Your task to perform on an android device: Go to privacy settings Image 0: 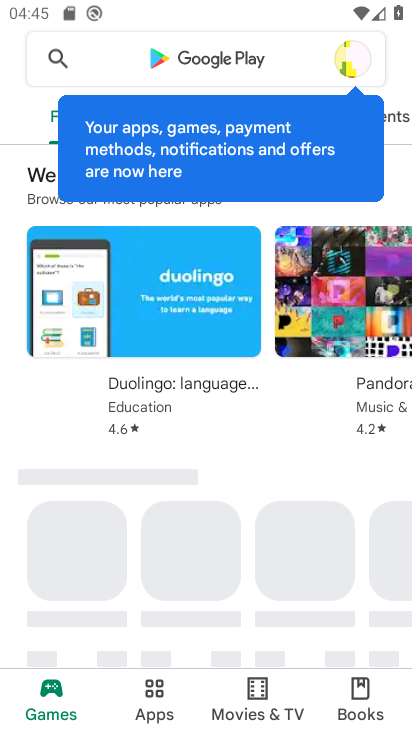
Step 0: press home button
Your task to perform on an android device: Go to privacy settings Image 1: 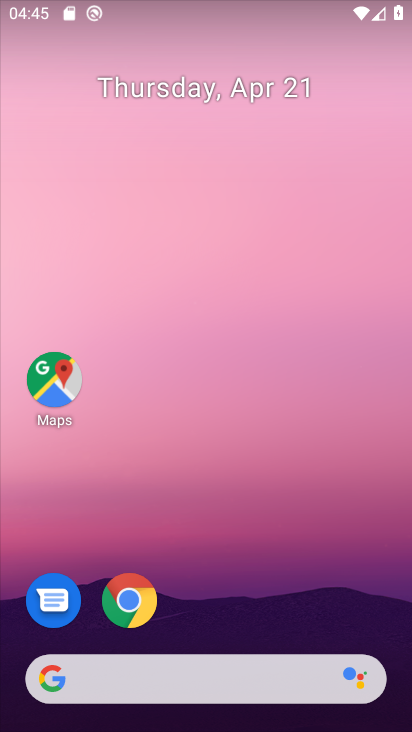
Step 1: drag from (341, 609) to (352, 28)
Your task to perform on an android device: Go to privacy settings Image 2: 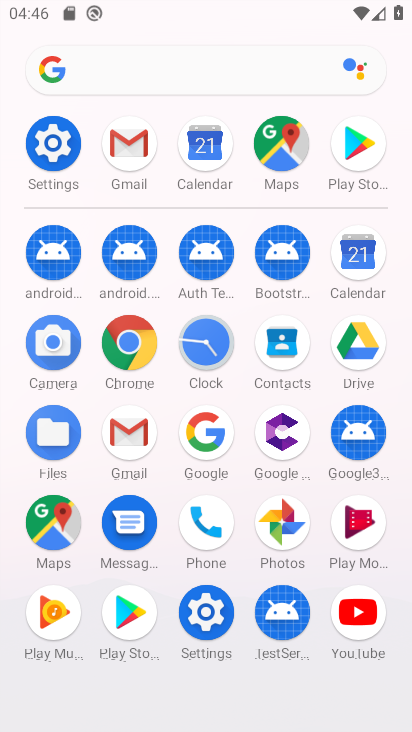
Step 2: click (61, 150)
Your task to perform on an android device: Go to privacy settings Image 3: 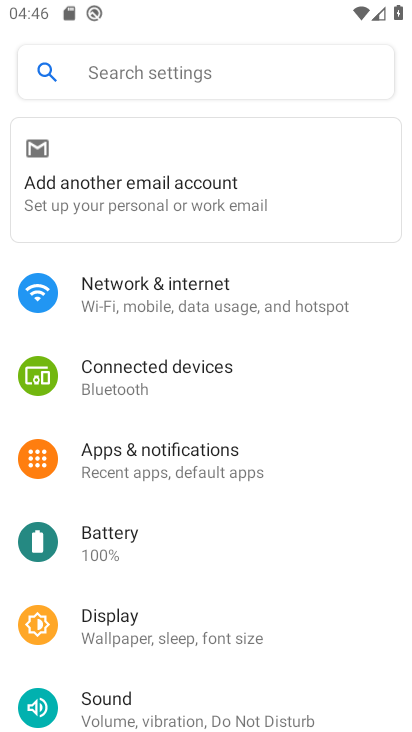
Step 3: drag from (345, 582) to (311, 210)
Your task to perform on an android device: Go to privacy settings Image 4: 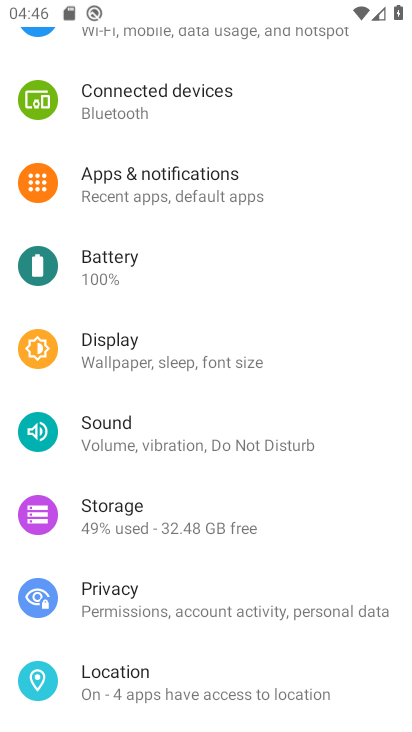
Step 4: click (97, 604)
Your task to perform on an android device: Go to privacy settings Image 5: 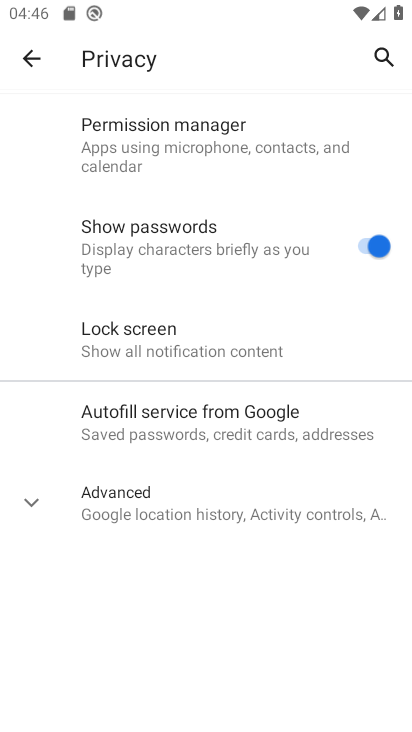
Step 5: click (33, 509)
Your task to perform on an android device: Go to privacy settings Image 6: 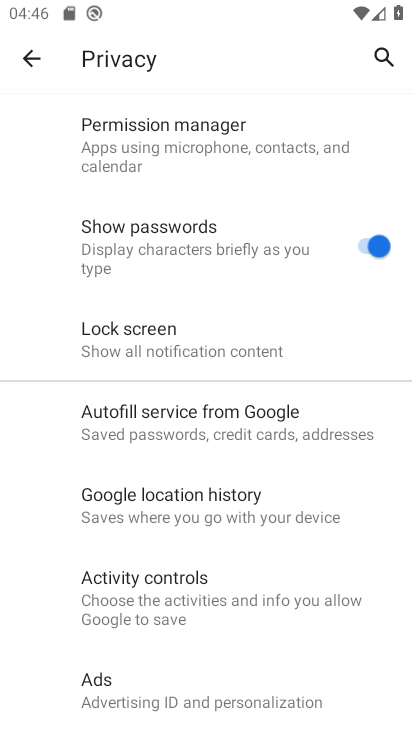
Step 6: task complete